Your task to perform on an android device: Open Chrome and go to settings Image 0: 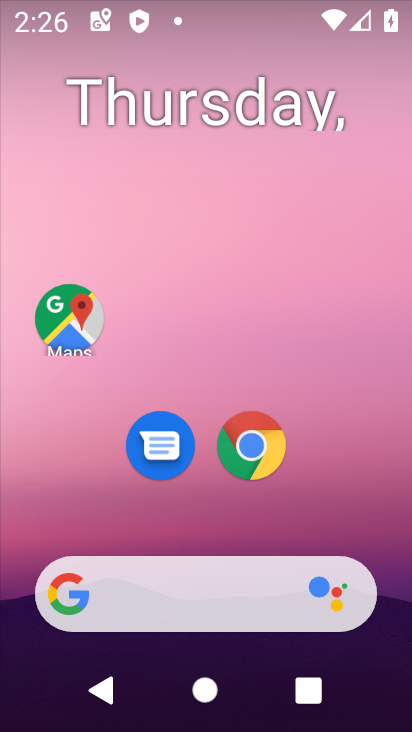
Step 0: click (242, 454)
Your task to perform on an android device: Open Chrome and go to settings Image 1: 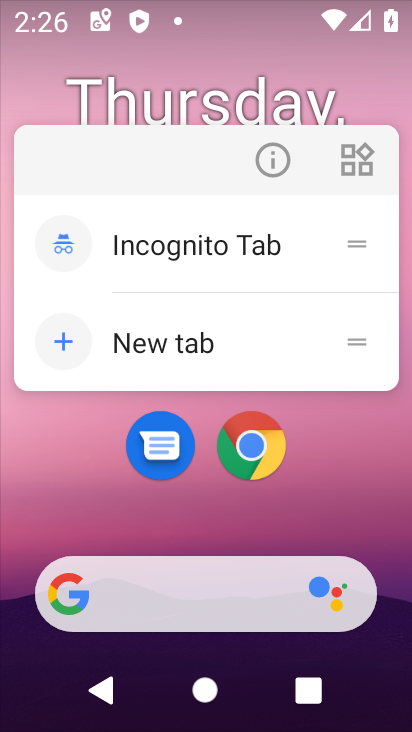
Step 1: click (250, 453)
Your task to perform on an android device: Open Chrome and go to settings Image 2: 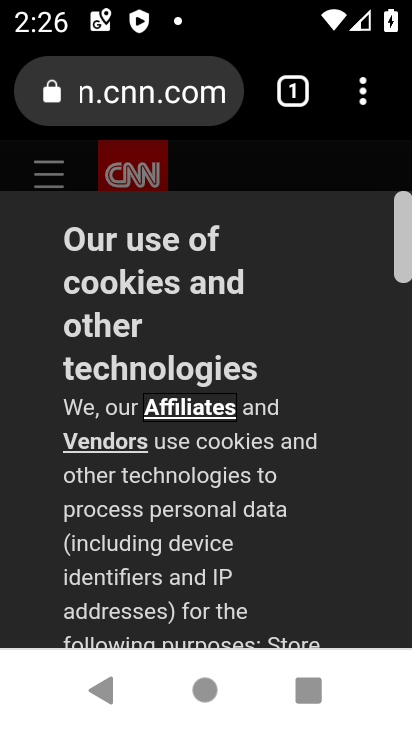
Step 2: click (360, 102)
Your task to perform on an android device: Open Chrome and go to settings Image 3: 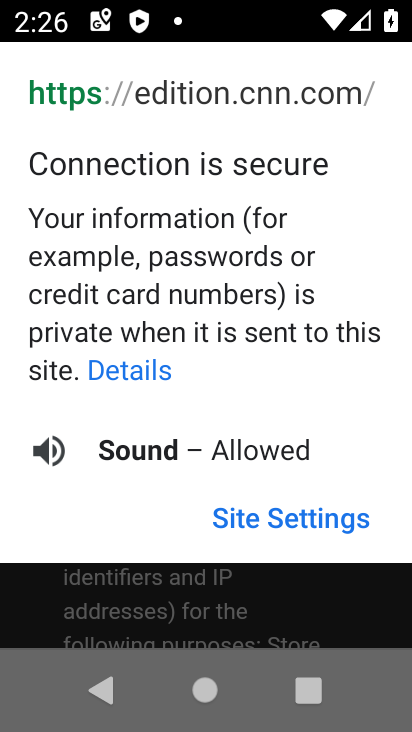
Step 3: press back button
Your task to perform on an android device: Open Chrome and go to settings Image 4: 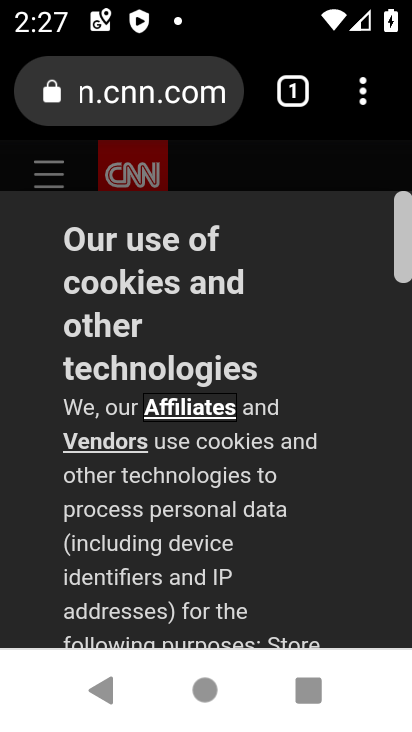
Step 4: click (368, 92)
Your task to perform on an android device: Open Chrome and go to settings Image 5: 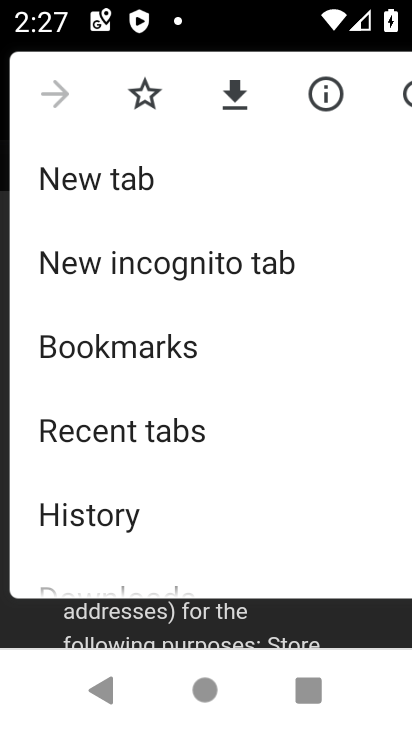
Step 5: drag from (97, 525) to (257, 120)
Your task to perform on an android device: Open Chrome and go to settings Image 6: 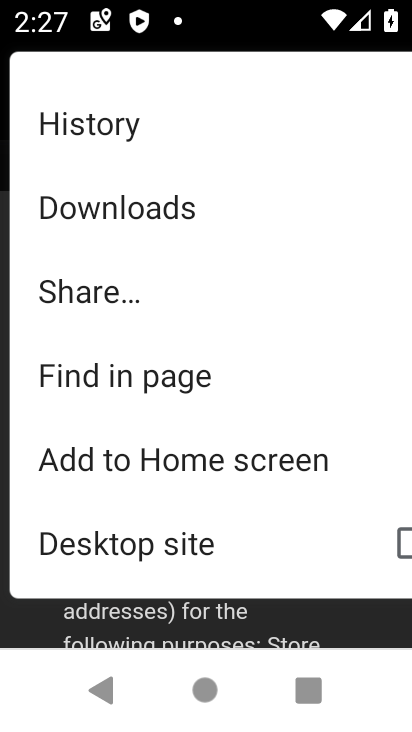
Step 6: drag from (91, 489) to (273, 70)
Your task to perform on an android device: Open Chrome and go to settings Image 7: 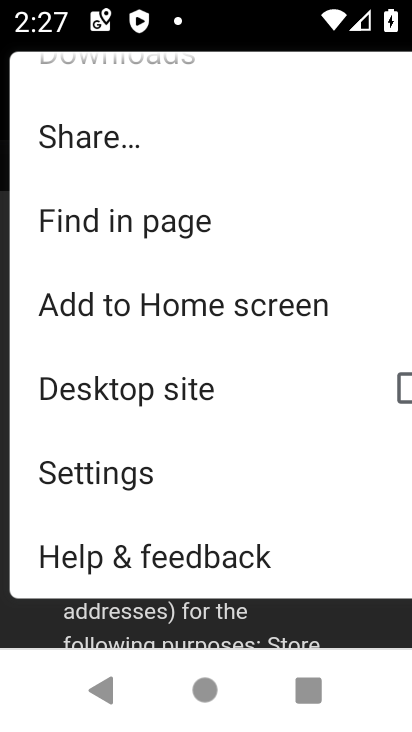
Step 7: click (110, 479)
Your task to perform on an android device: Open Chrome and go to settings Image 8: 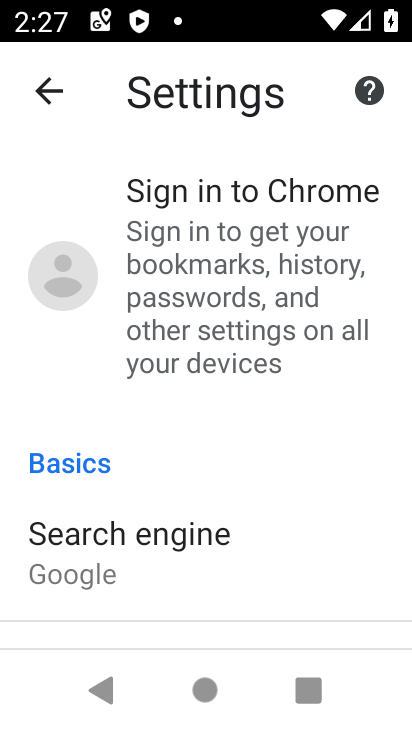
Step 8: task complete